Your task to perform on an android device: toggle location history Image 0: 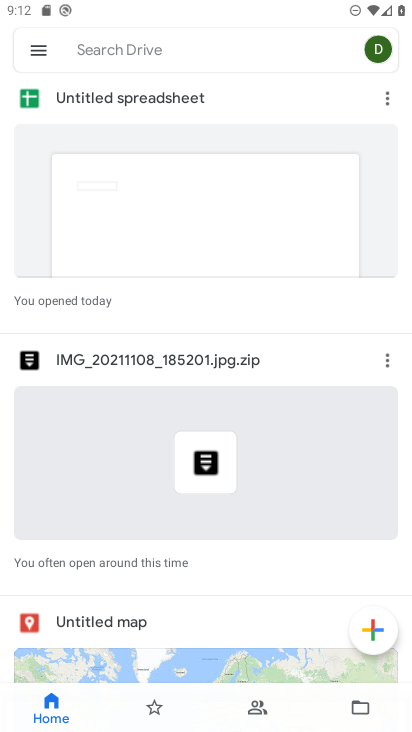
Step 0: press home button
Your task to perform on an android device: toggle location history Image 1: 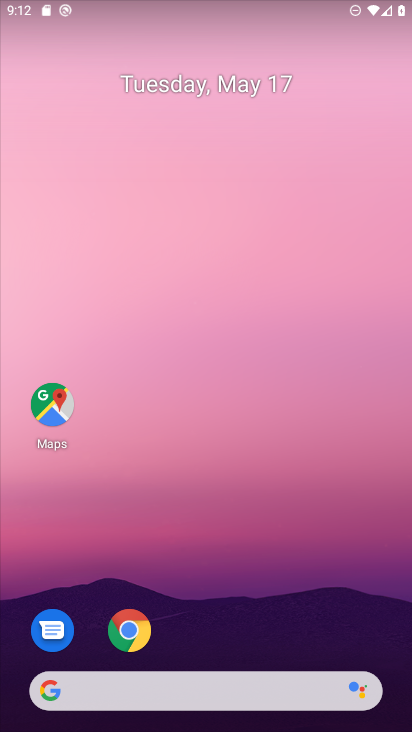
Step 1: drag from (353, 615) to (325, 196)
Your task to perform on an android device: toggle location history Image 2: 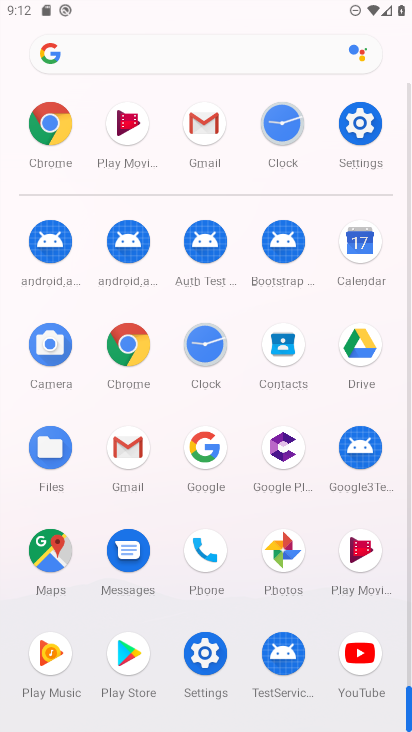
Step 2: click (361, 132)
Your task to perform on an android device: toggle location history Image 3: 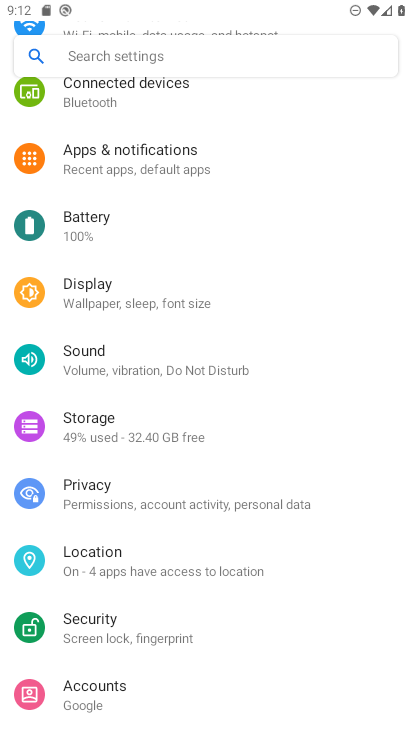
Step 3: drag from (337, 625) to (321, 380)
Your task to perform on an android device: toggle location history Image 4: 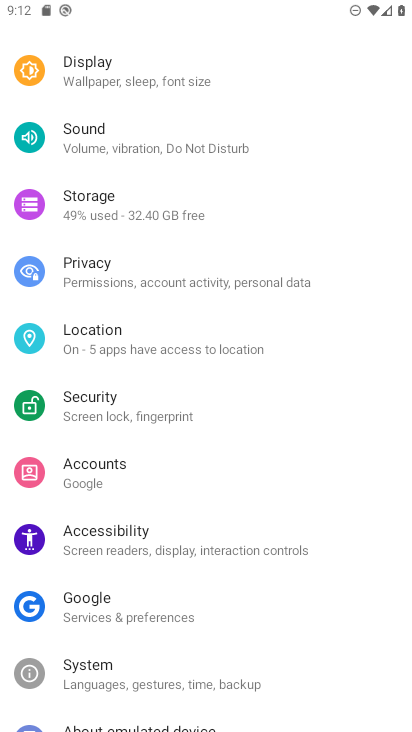
Step 4: drag from (351, 625) to (347, 434)
Your task to perform on an android device: toggle location history Image 5: 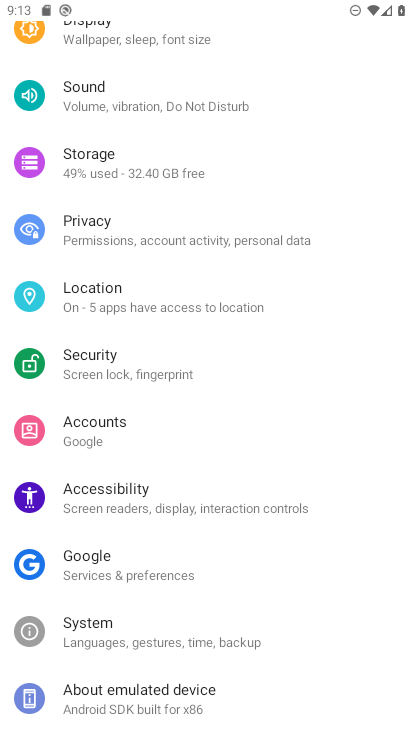
Step 5: drag from (344, 259) to (347, 448)
Your task to perform on an android device: toggle location history Image 6: 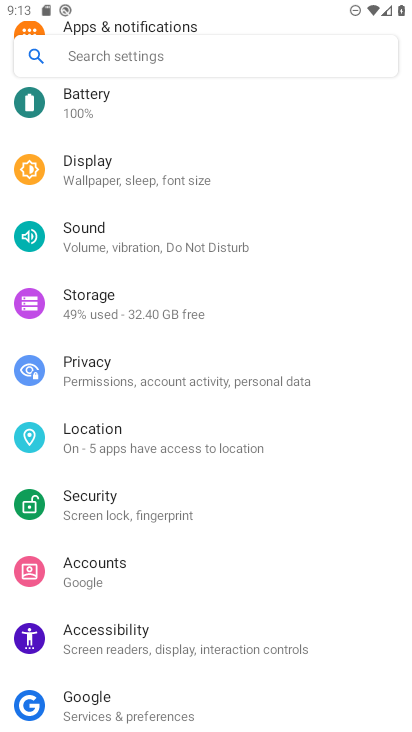
Step 6: drag from (361, 234) to (335, 477)
Your task to perform on an android device: toggle location history Image 7: 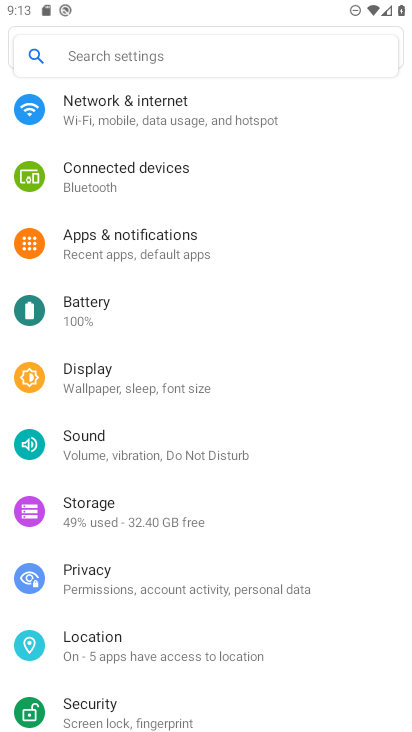
Step 7: drag from (328, 218) to (313, 436)
Your task to perform on an android device: toggle location history Image 8: 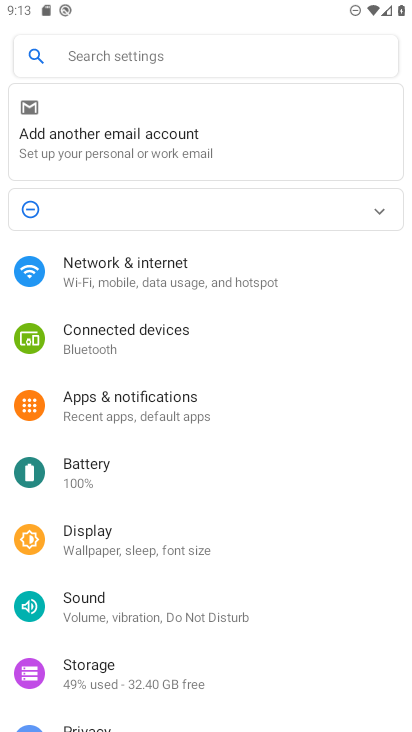
Step 8: drag from (271, 562) to (289, 436)
Your task to perform on an android device: toggle location history Image 9: 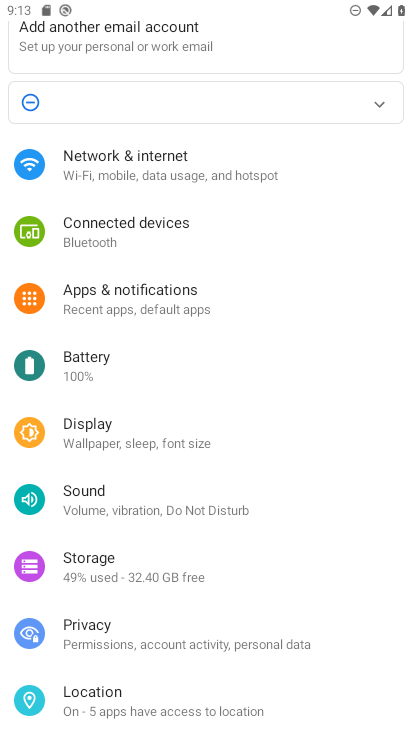
Step 9: drag from (283, 581) to (294, 452)
Your task to perform on an android device: toggle location history Image 10: 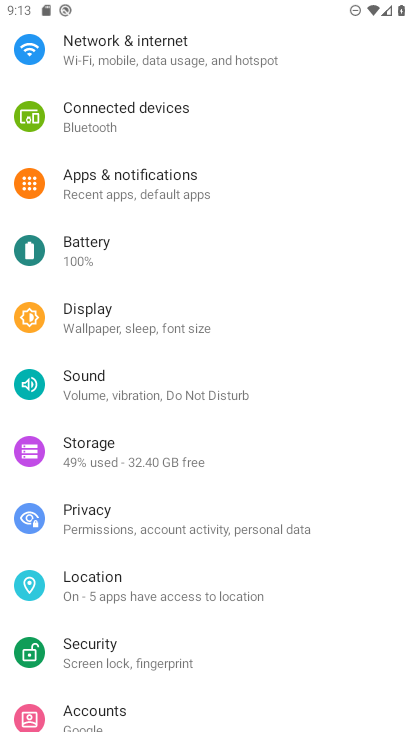
Step 10: click (256, 600)
Your task to perform on an android device: toggle location history Image 11: 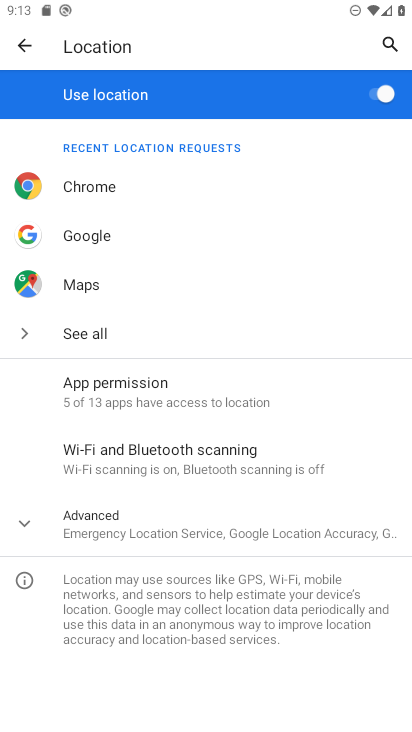
Step 11: click (247, 534)
Your task to perform on an android device: toggle location history Image 12: 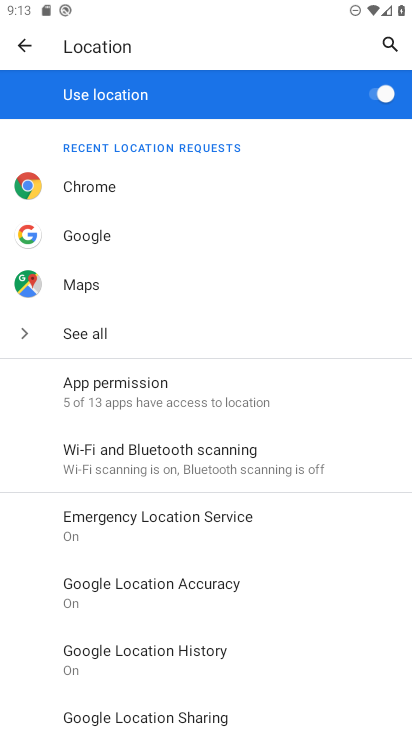
Step 12: drag from (260, 648) to (284, 543)
Your task to perform on an android device: toggle location history Image 13: 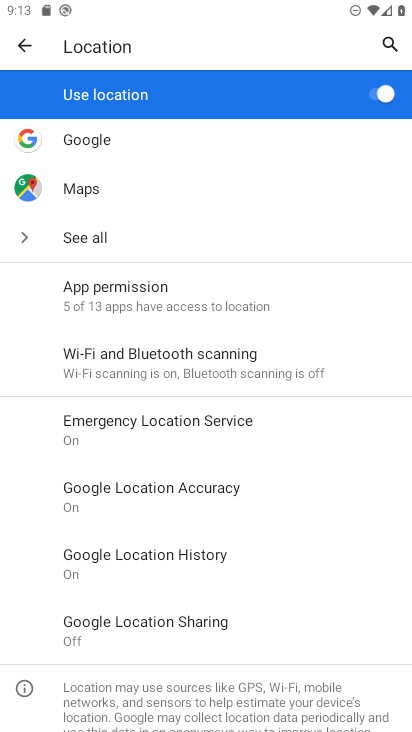
Step 13: click (168, 557)
Your task to perform on an android device: toggle location history Image 14: 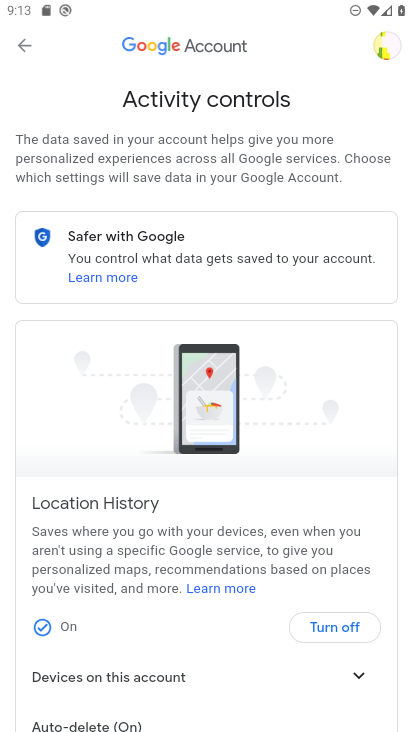
Step 14: click (328, 633)
Your task to perform on an android device: toggle location history Image 15: 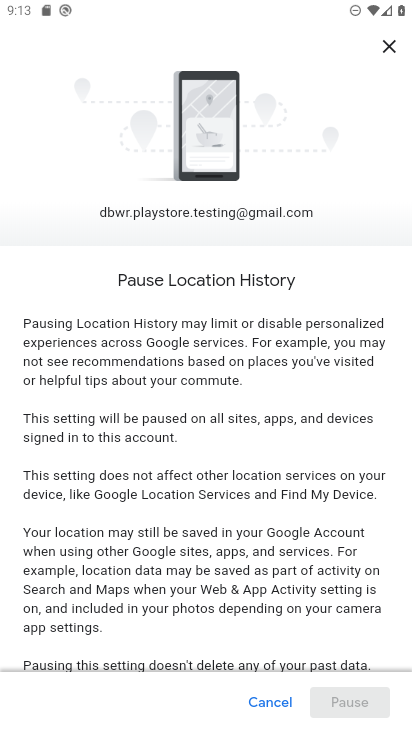
Step 15: drag from (196, 579) to (220, 419)
Your task to perform on an android device: toggle location history Image 16: 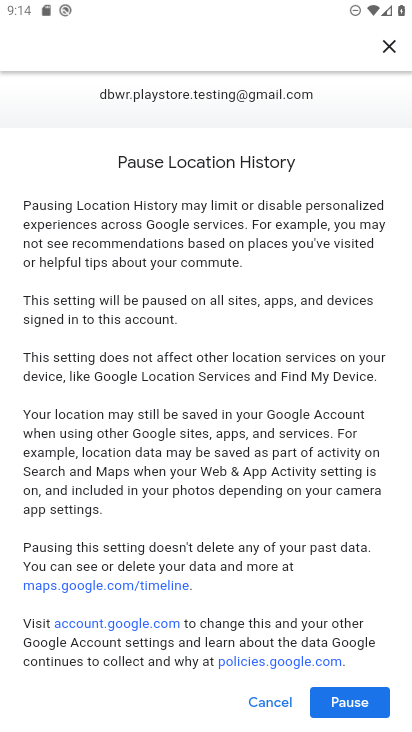
Step 16: click (352, 695)
Your task to perform on an android device: toggle location history Image 17: 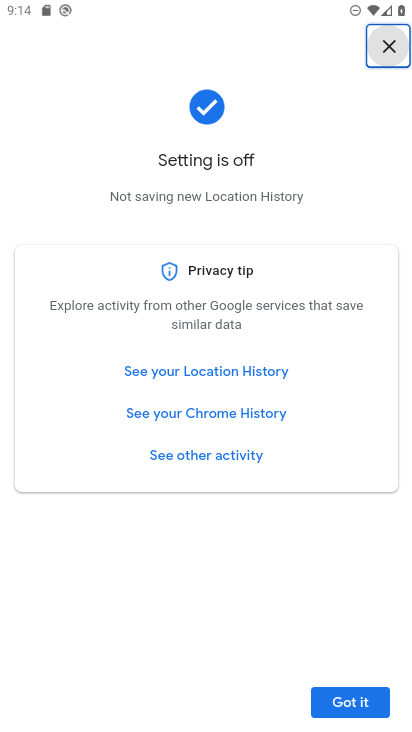
Step 17: task complete